Your task to perform on an android device: Go to battery settings Image 0: 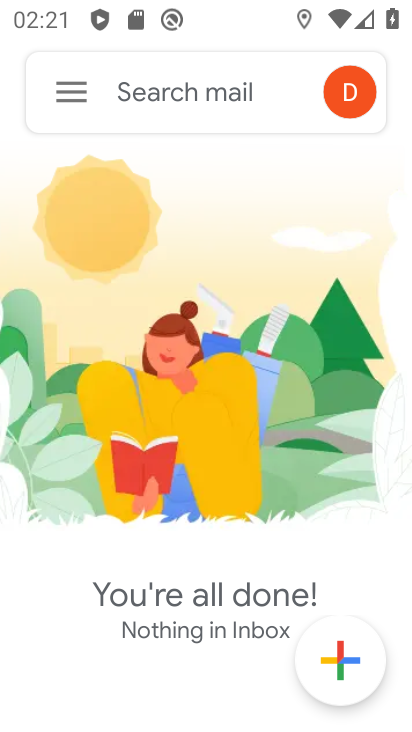
Step 0: press home button
Your task to perform on an android device: Go to battery settings Image 1: 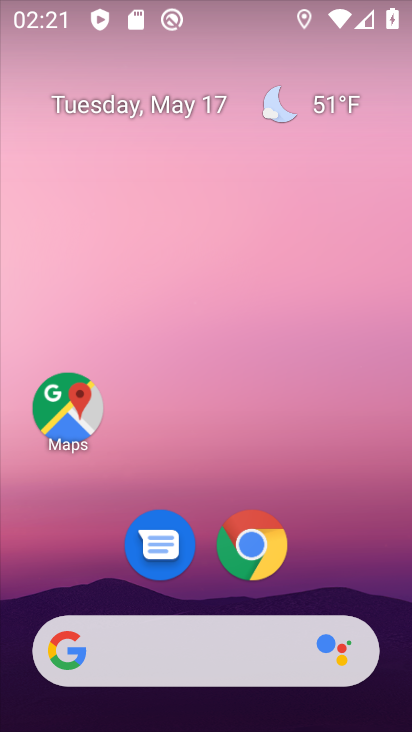
Step 1: drag from (218, 559) to (276, 62)
Your task to perform on an android device: Go to battery settings Image 2: 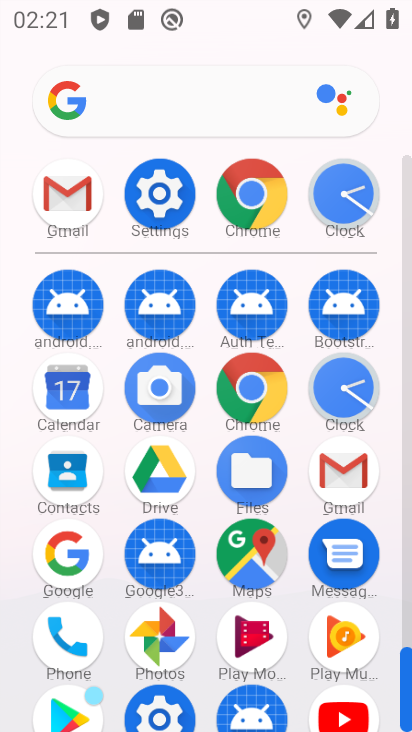
Step 2: click (165, 204)
Your task to perform on an android device: Go to battery settings Image 3: 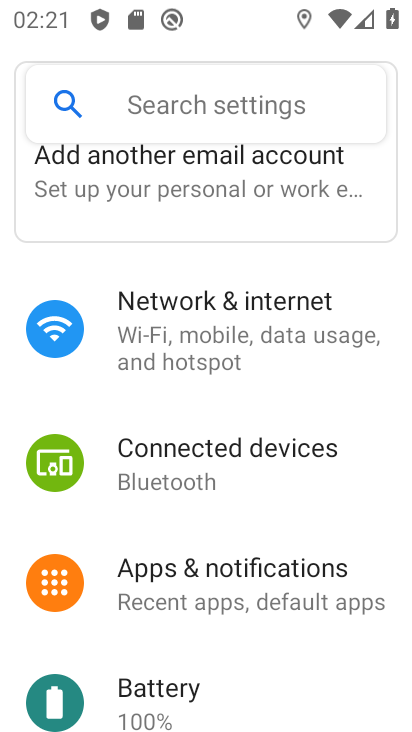
Step 3: click (203, 715)
Your task to perform on an android device: Go to battery settings Image 4: 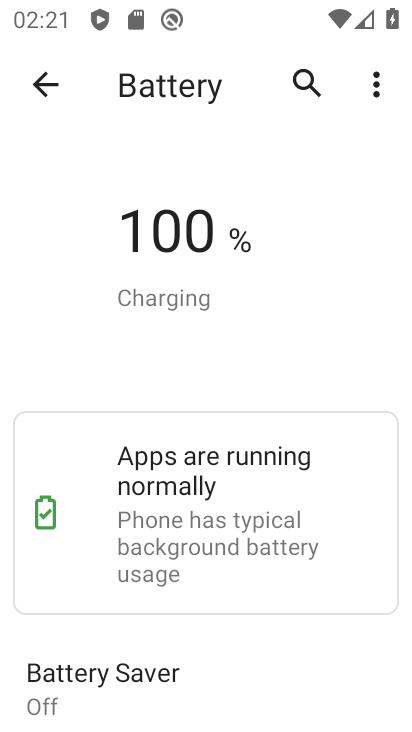
Step 4: task complete